Your task to perform on an android device: View the shopping cart on ebay.com. Add "razer deathadder" to the cart on ebay.com, then select checkout. Image 0: 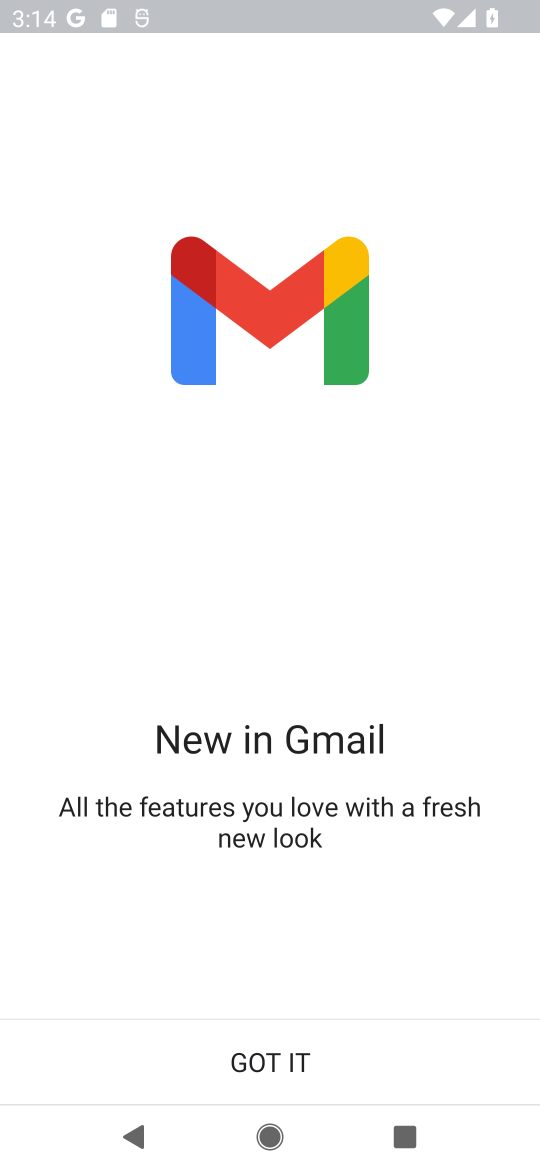
Step 0: click (405, 1042)
Your task to perform on an android device: View the shopping cart on ebay.com. Add "razer deathadder" to the cart on ebay.com, then select checkout. Image 1: 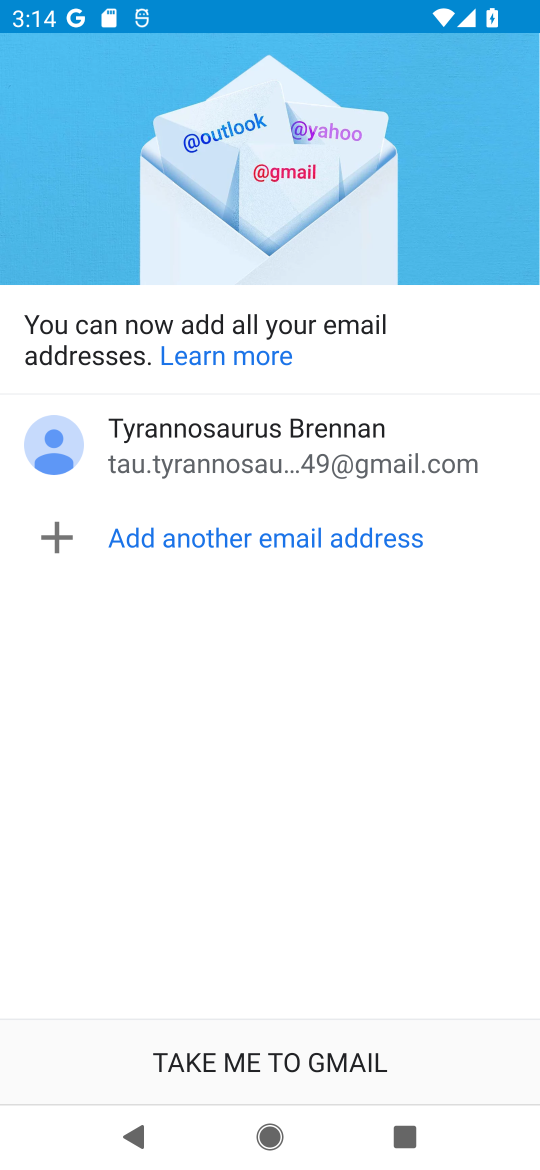
Step 1: press home button
Your task to perform on an android device: View the shopping cart on ebay.com. Add "razer deathadder" to the cart on ebay.com, then select checkout. Image 2: 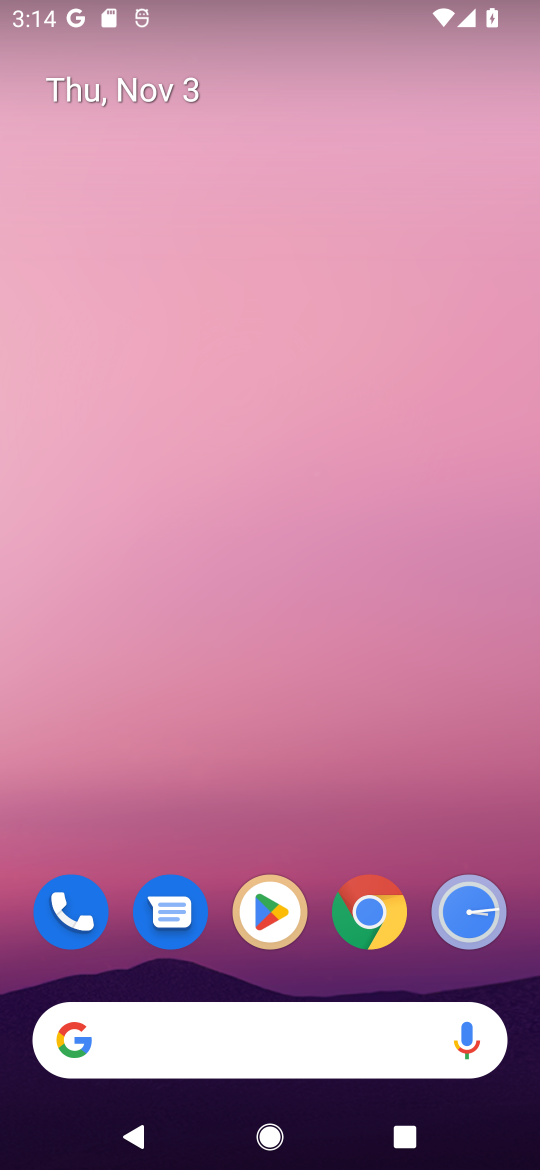
Step 2: click (369, 910)
Your task to perform on an android device: View the shopping cart on ebay.com. Add "razer deathadder" to the cart on ebay.com, then select checkout. Image 3: 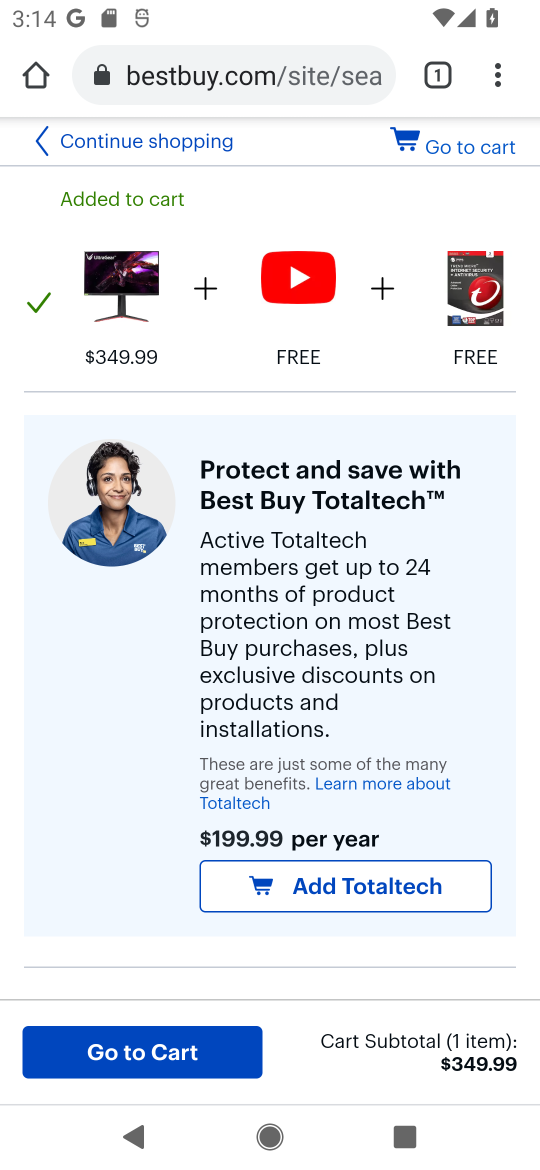
Step 3: click (307, 72)
Your task to perform on an android device: View the shopping cart on ebay.com. Add "razer deathadder" to the cart on ebay.com, then select checkout. Image 4: 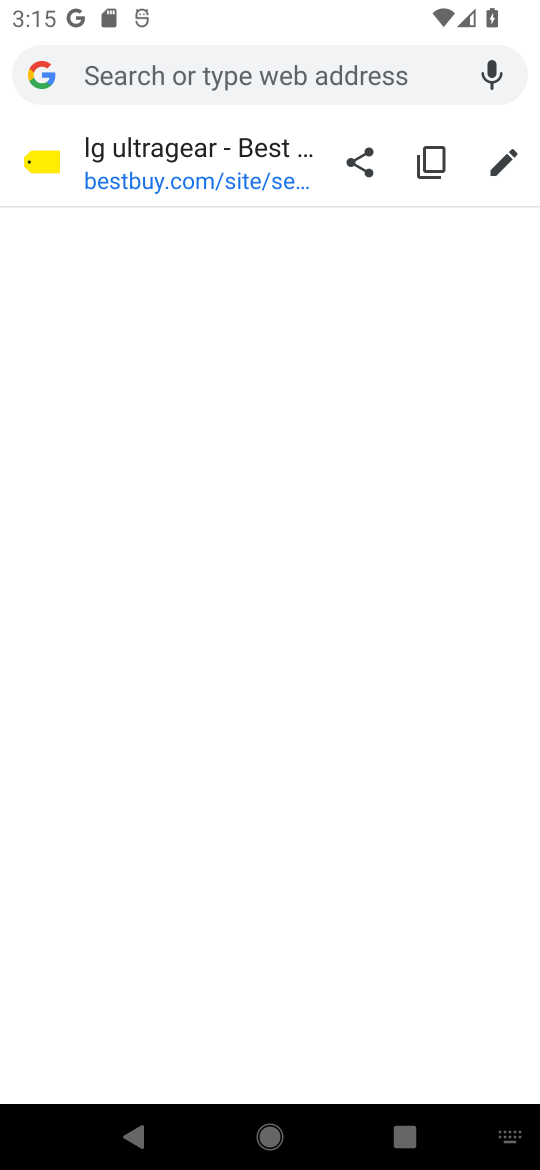
Step 4: click (273, 77)
Your task to perform on an android device: View the shopping cart on ebay.com. Add "razer deathadder" to the cart on ebay.com, then select checkout. Image 5: 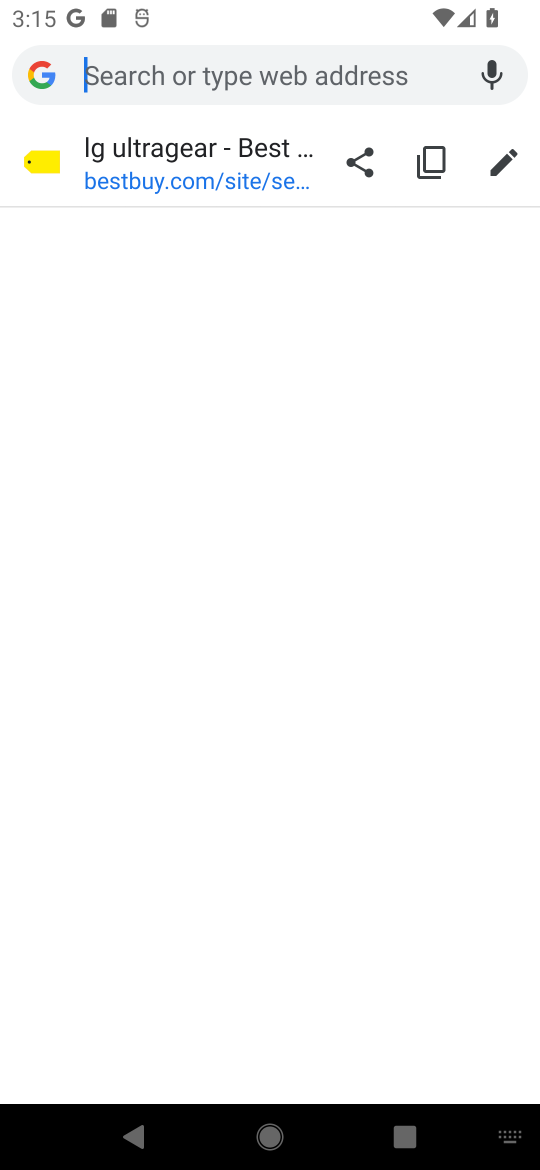
Step 5: type "ebay.com"
Your task to perform on an android device: View the shopping cart on ebay.com. Add "razer deathadder" to the cart on ebay.com, then select checkout. Image 6: 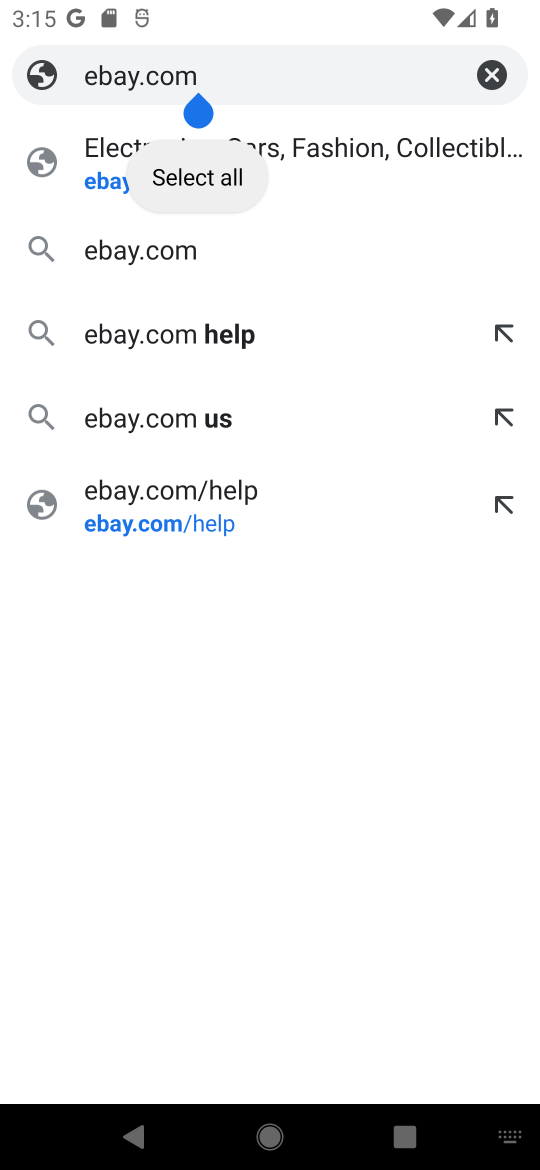
Step 6: click (185, 254)
Your task to perform on an android device: View the shopping cart on ebay.com. Add "razer deathadder" to the cart on ebay.com, then select checkout. Image 7: 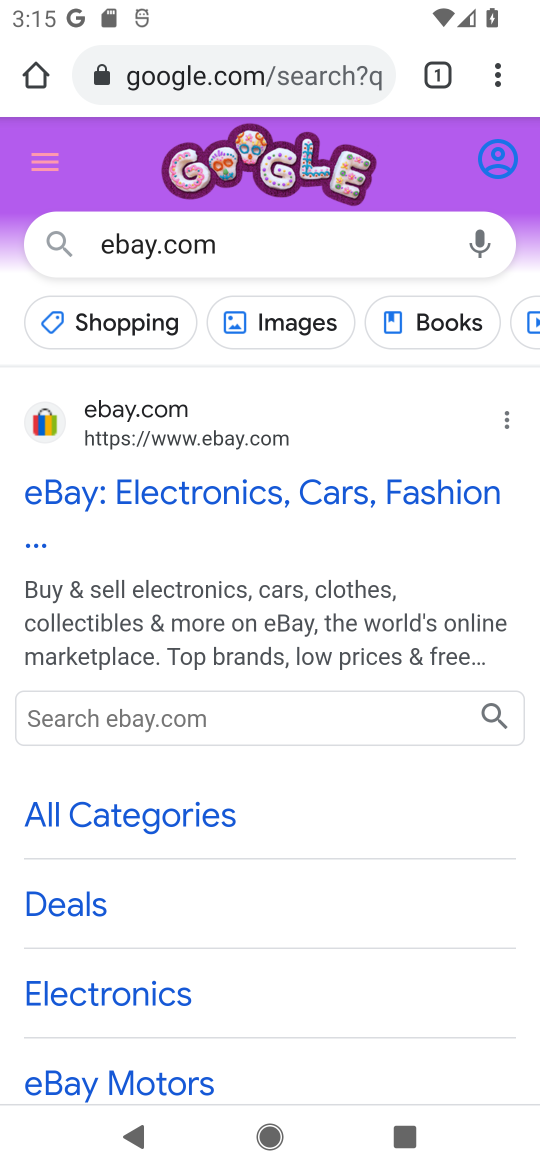
Step 7: click (171, 500)
Your task to perform on an android device: View the shopping cart on ebay.com. Add "razer deathadder" to the cart on ebay.com, then select checkout. Image 8: 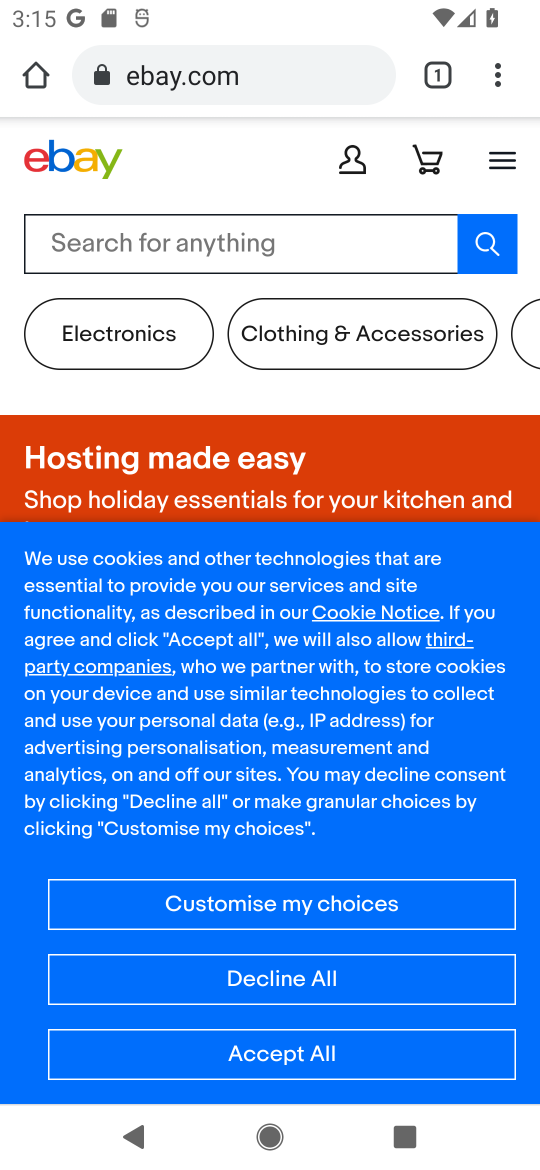
Step 8: click (417, 1062)
Your task to perform on an android device: View the shopping cart on ebay.com. Add "razer deathadder" to the cart on ebay.com, then select checkout. Image 9: 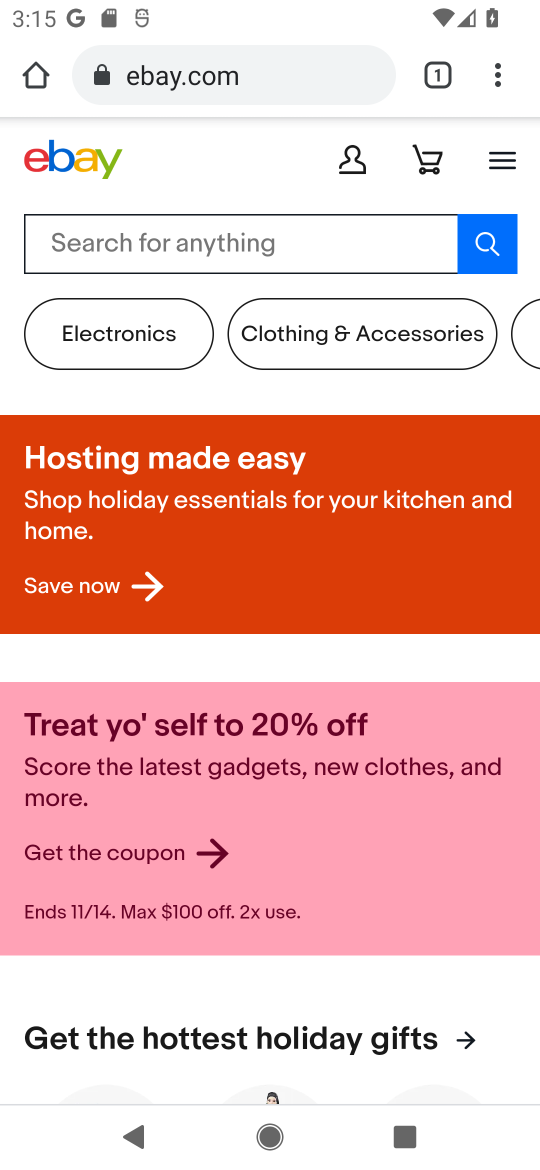
Step 9: click (198, 241)
Your task to perform on an android device: View the shopping cart on ebay.com. Add "razer deathadder" to the cart on ebay.com, then select checkout. Image 10: 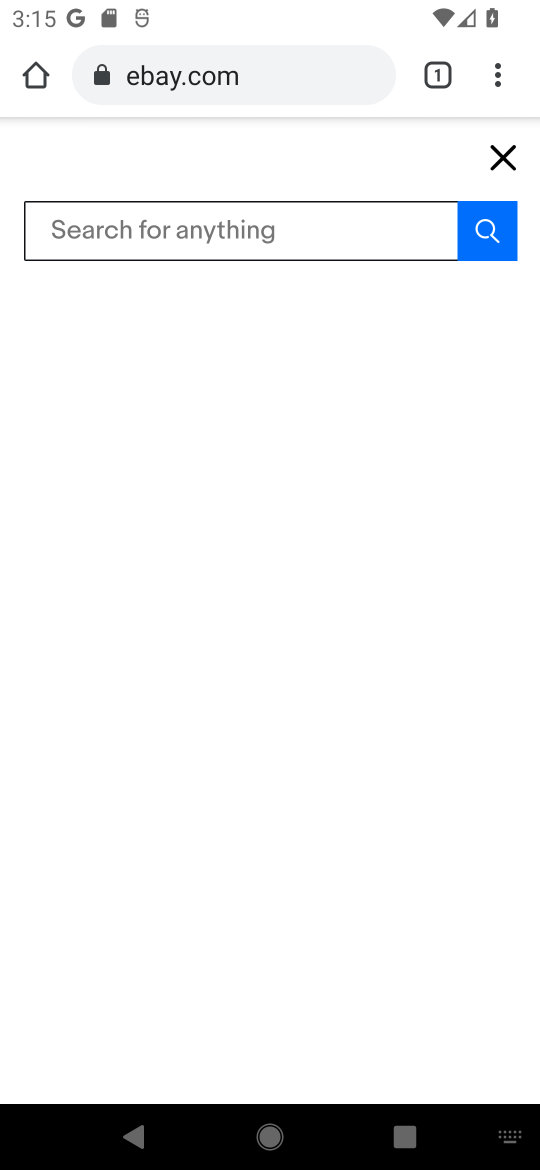
Step 10: type "razer deathadder"
Your task to perform on an android device: View the shopping cart on ebay.com. Add "razer deathadder" to the cart on ebay.com, then select checkout. Image 11: 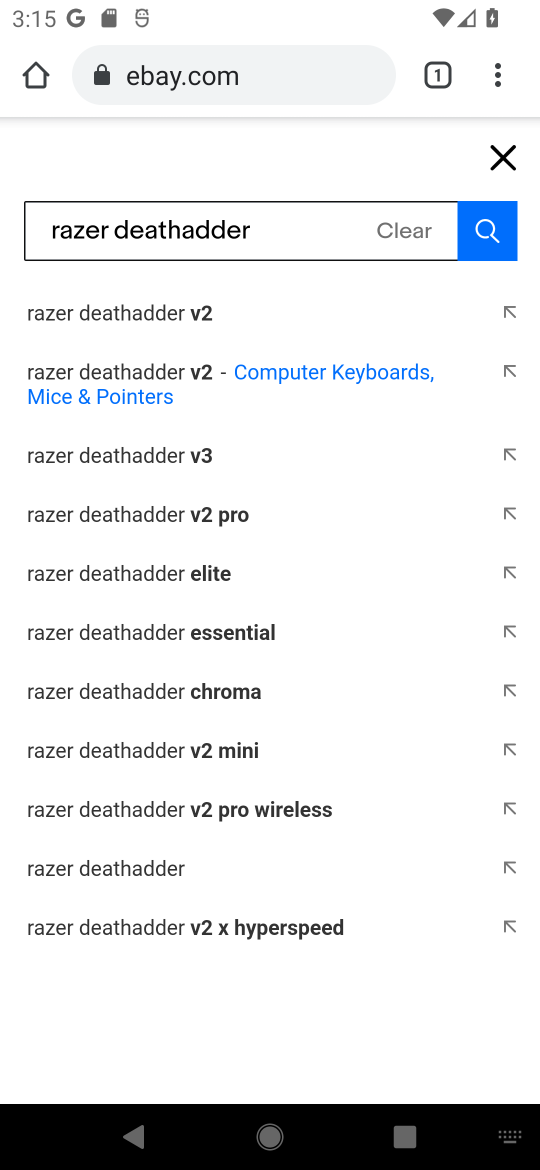
Step 11: click (138, 871)
Your task to perform on an android device: View the shopping cart on ebay.com. Add "razer deathadder" to the cart on ebay.com, then select checkout. Image 12: 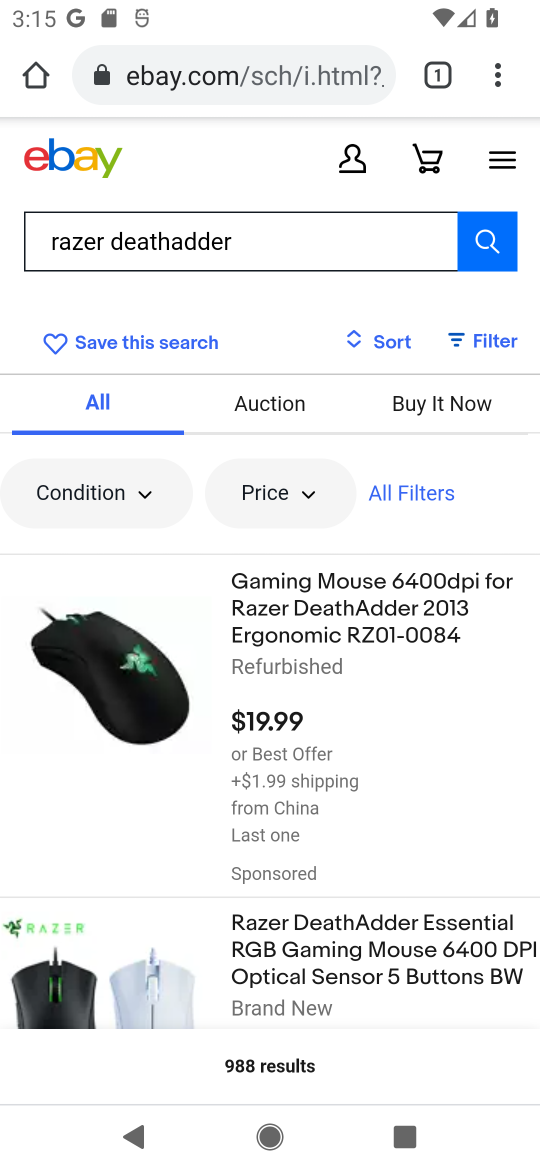
Step 12: click (377, 954)
Your task to perform on an android device: View the shopping cart on ebay.com. Add "razer deathadder" to the cart on ebay.com, then select checkout. Image 13: 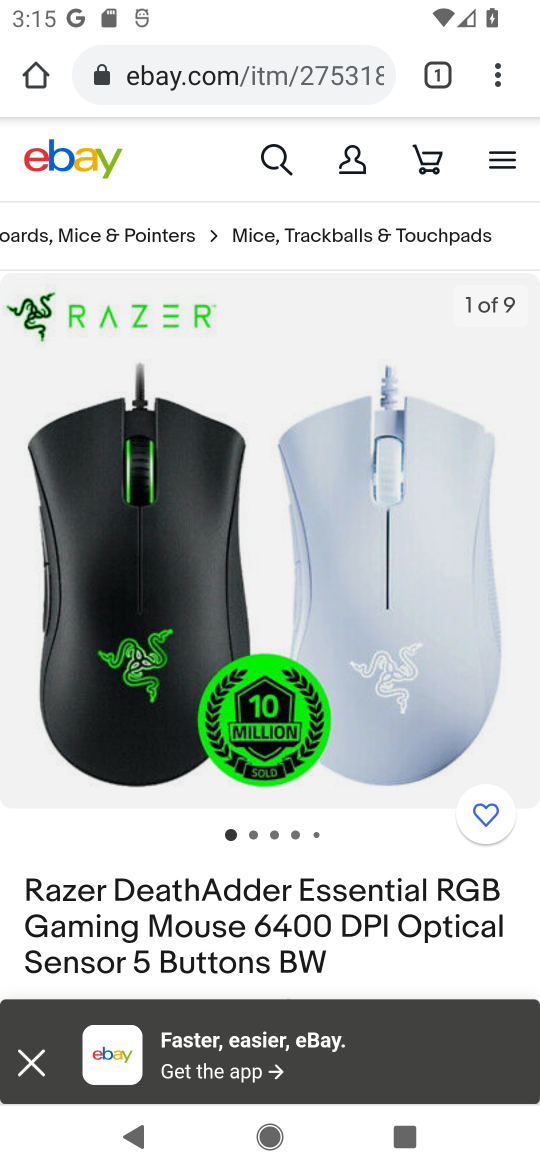
Step 13: drag from (267, 949) to (293, 304)
Your task to perform on an android device: View the shopping cart on ebay.com. Add "razer deathadder" to the cart on ebay.com, then select checkout. Image 14: 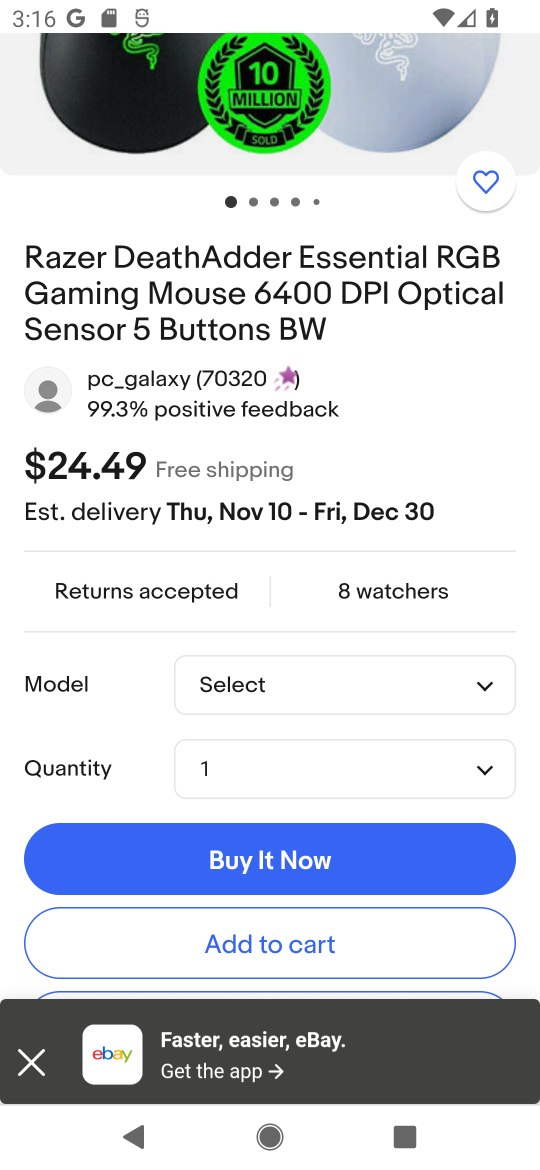
Step 14: click (311, 941)
Your task to perform on an android device: View the shopping cart on ebay.com. Add "razer deathadder" to the cart on ebay.com, then select checkout. Image 15: 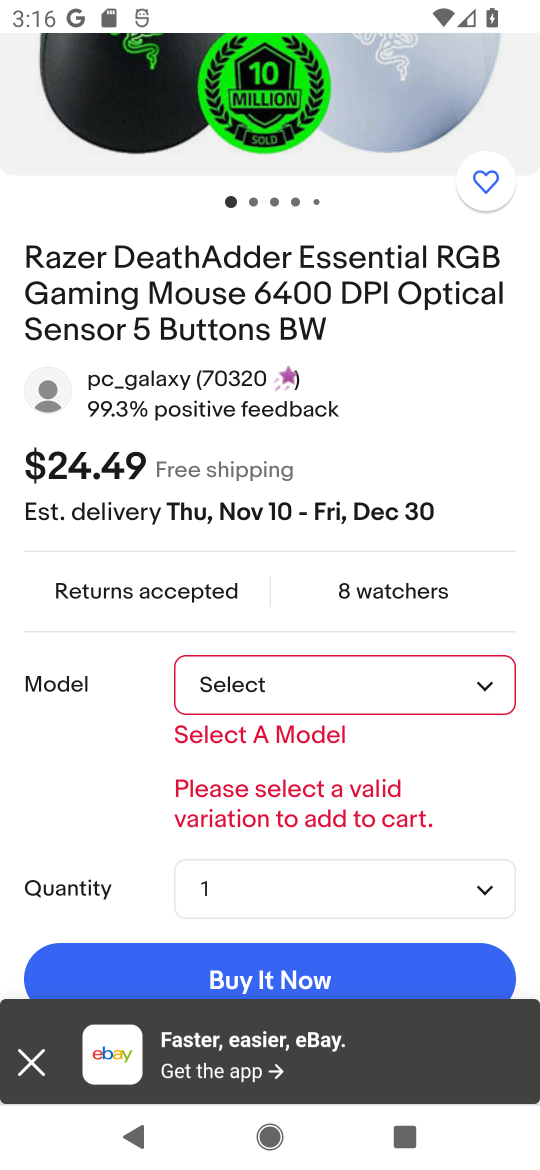
Step 15: click (487, 686)
Your task to perform on an android device: View the shopping cart on ebay.com. Add "razer deathadder" to the cart on ebay.com, then select checkout. Image 16: 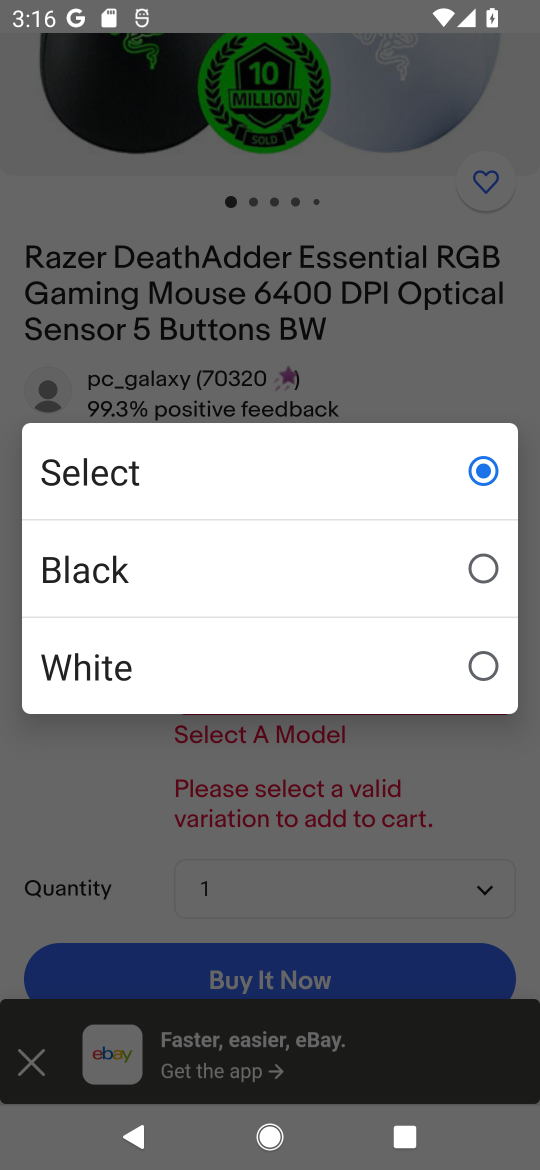
Step 16: click (209, 576)
Your task to perform on an android device: View the shopping cart on ebay.com. Add "razer deathadder" to the cart on ebay.com, then select checkout. Image 17: 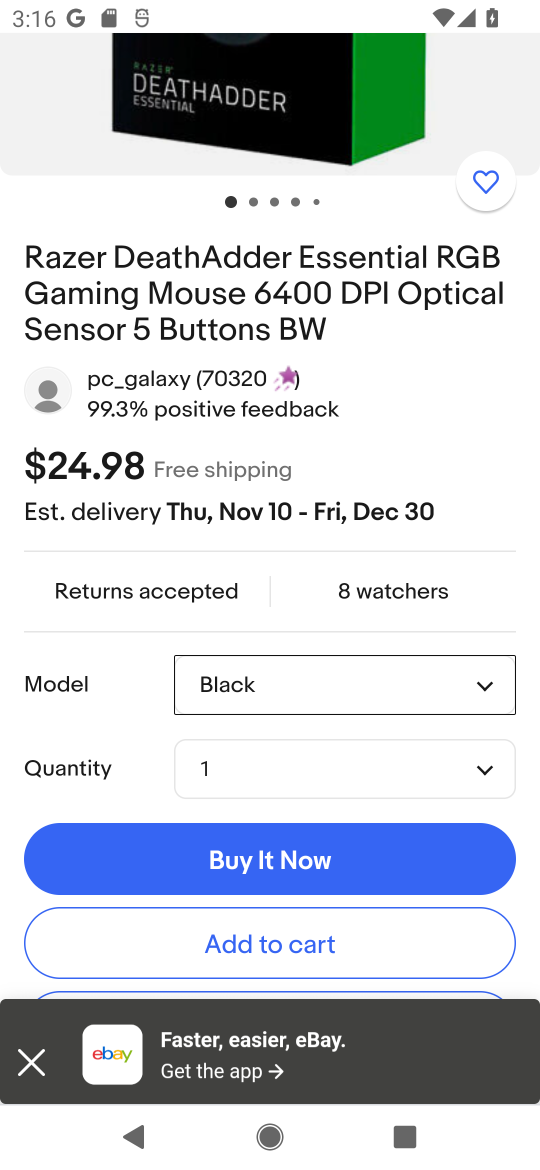
Step 17: click (296, 961)
Your task to perform on an android device: View the shopping cart on ebay.com. Add "razer deathadder" to the cart on ebay.com, then select checkout. Image 18: 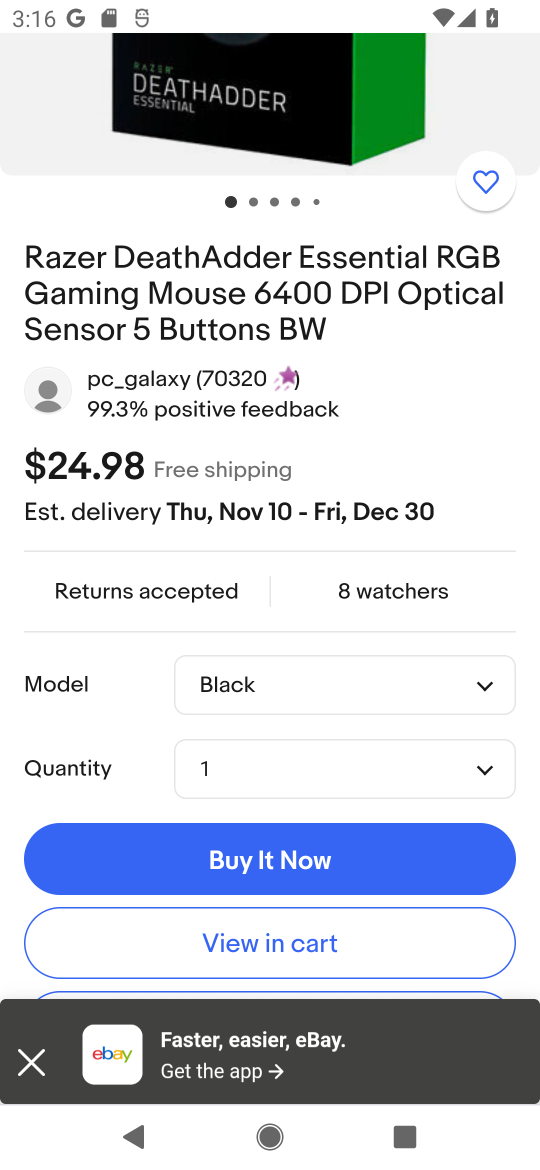
Step 18: click (326, 945)
Your task to perform on an android device: View the shopping cart on ebay.com. Add "razer deathadder" to the cart on ebay.com, then select checkout. Image 19: 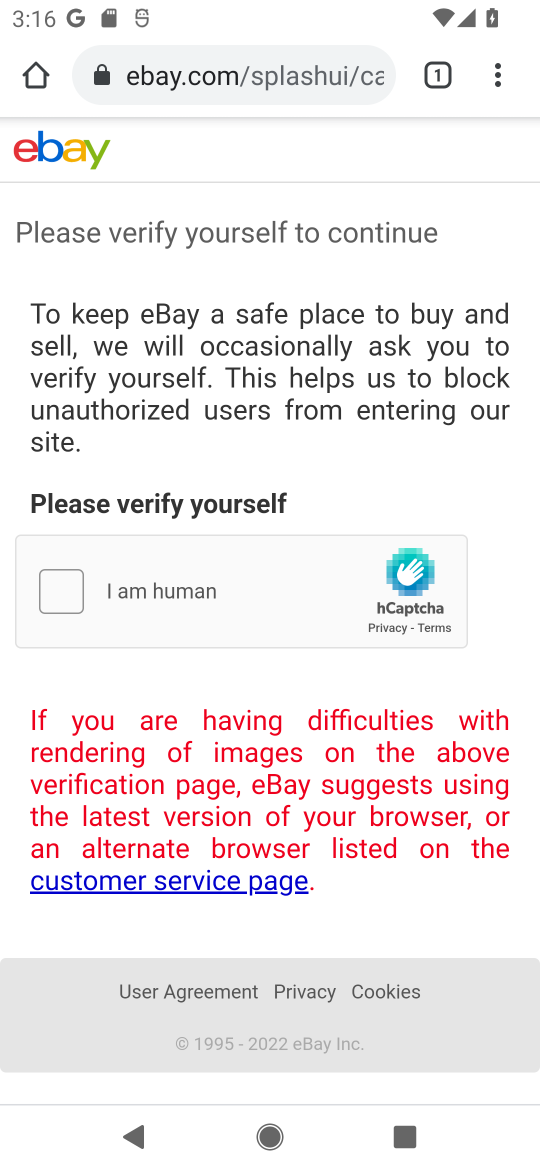
Step 19: click (58, 587)
Your task to perform on an android device: View the shopping cart on ebay.com. Add "razer deathadder" to the cart on ebay.com, then select checkout. Image 20: 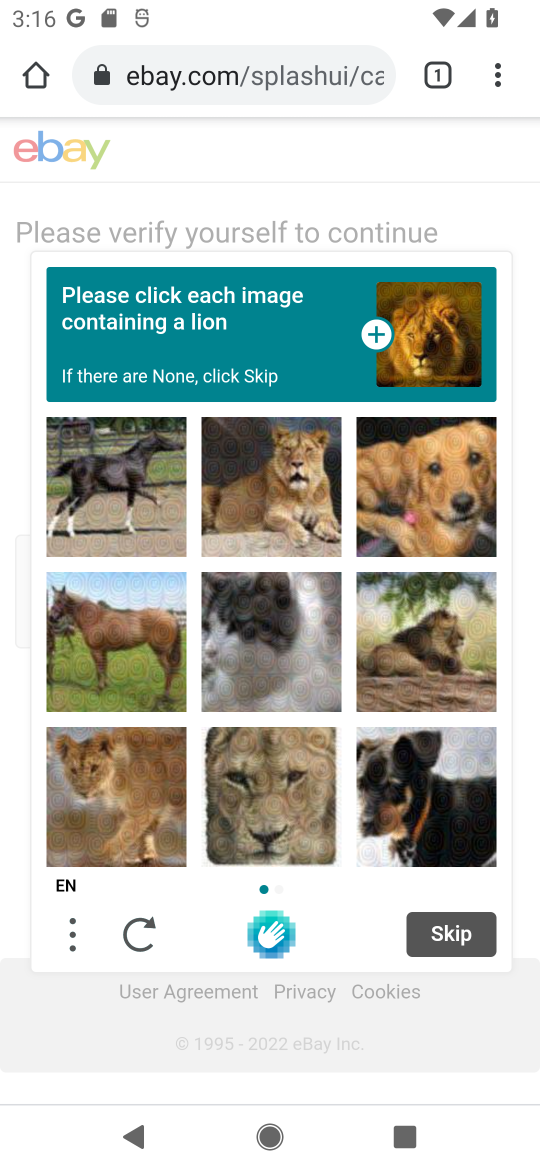
Step 20: click (277, 480)
Your task to perform on an android device: View the shopping cart on ebay.com. Add "razer deathadder" to the cart on ebay.com, then select checkout. Image 21: 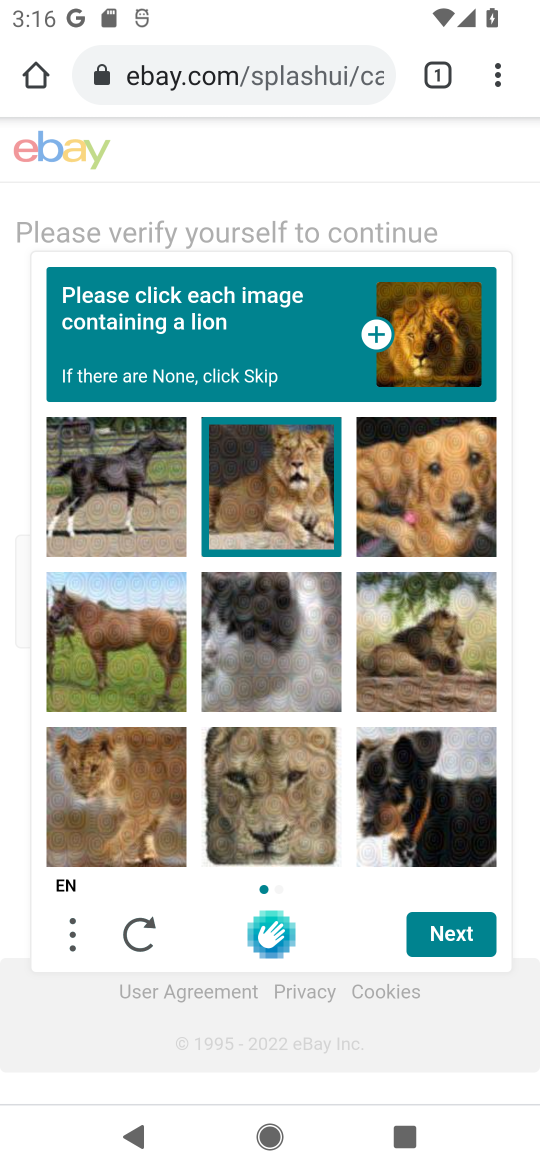
Step 21: click (266, 783)
Your task to perform on an android device: View the shopping cart on ebay.com. Add "razer deathadder" to the cart on ebay.com, then select checkout. Image 22: 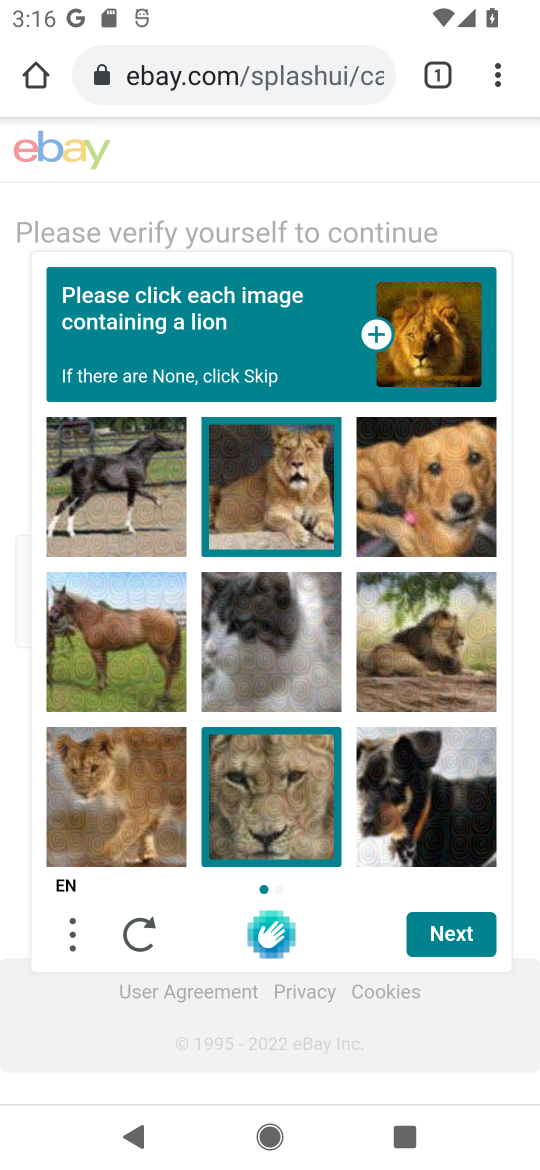
Step 22: click (104, 794)
Your task to perform on an android device: View the shopping cart on ebay.com. Add "razer deathadder" to the cart on ebay.com, then select checkout. Image 23: 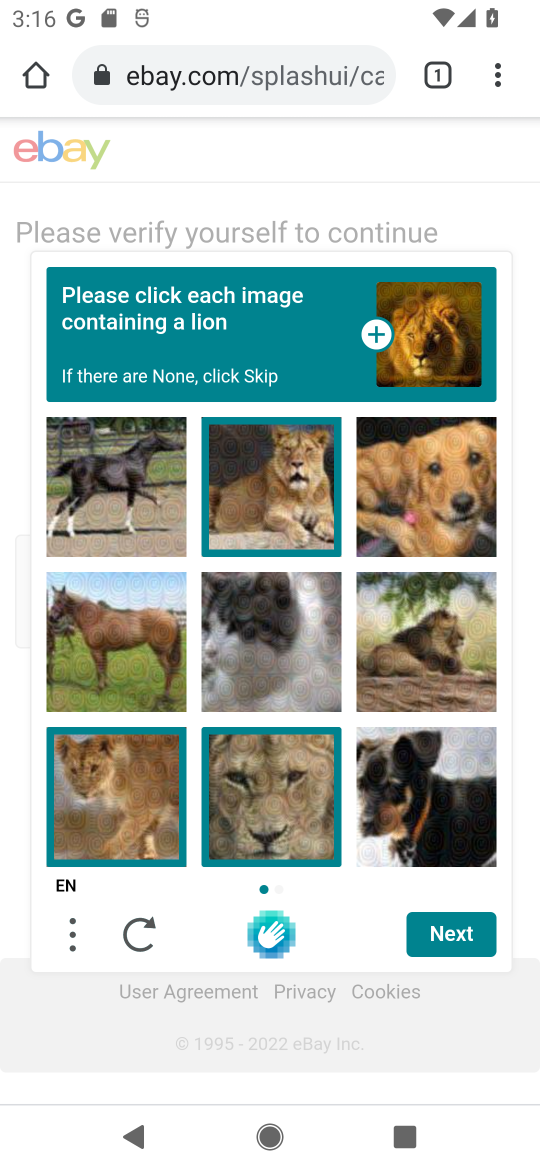
Step 23: click (442, 635)
Your task to perform on an android device: View the shopping cart on ebay.com. Add "razer deathadder" to the cart on ebay.com, then select checkout. Image 24: 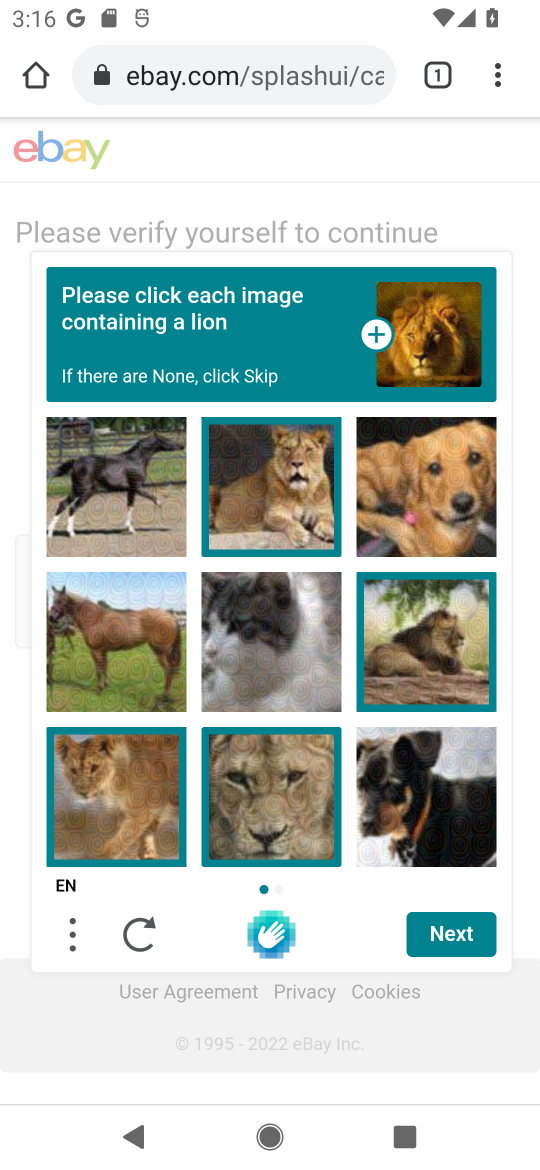
Step 24: click (472, 929)
Your task to perform on an android device: View the shopping cart on ebay.com. Add "razer deathadder" to the cart on ebay.com, then select checkout. Image 25: 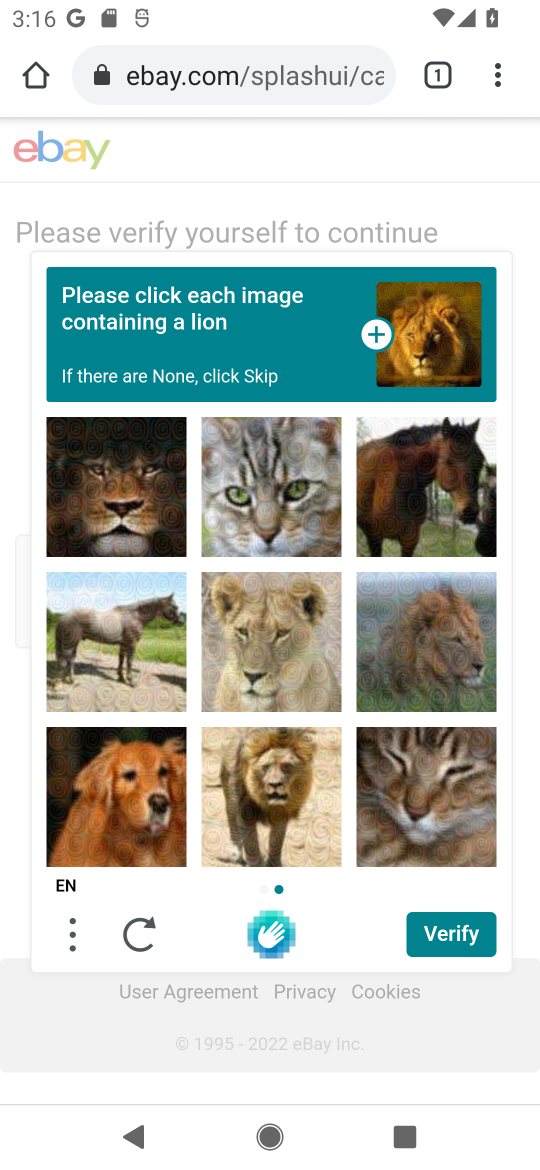
Step 25: click (472, 929)
Your task to perform on an android device: View the shopping cart on ebay.com. Add "razer deathadder" to the cart on ebay.com, then select checkout. Image 26: 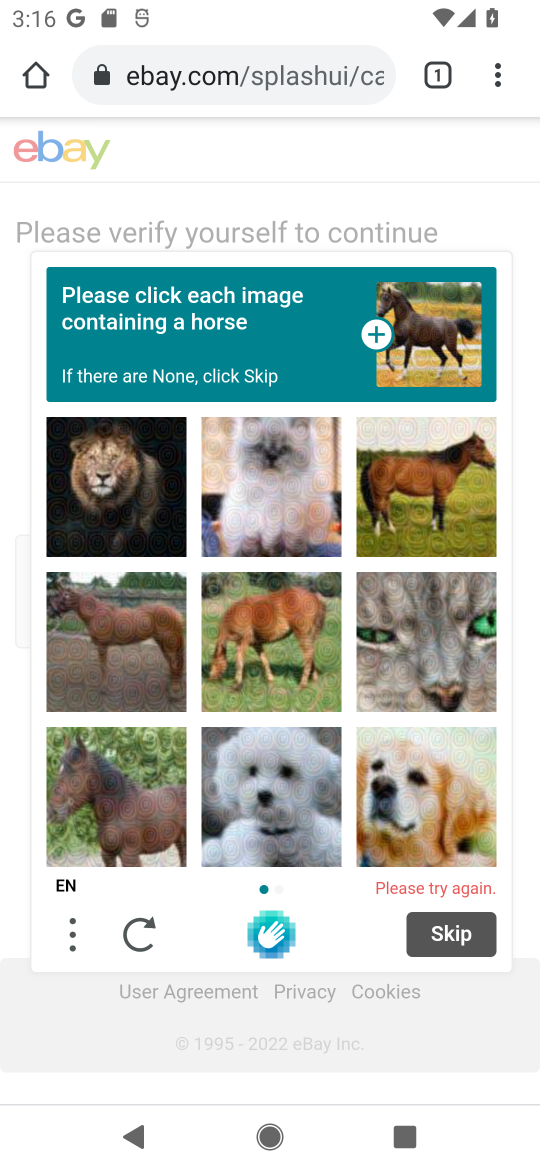
Step 26: press back button
Your task to perform on an android device: View the shopping cart on ebay.com. Add "razer deathadder" to the cart on ebay.com, then select checkout. Image 27: 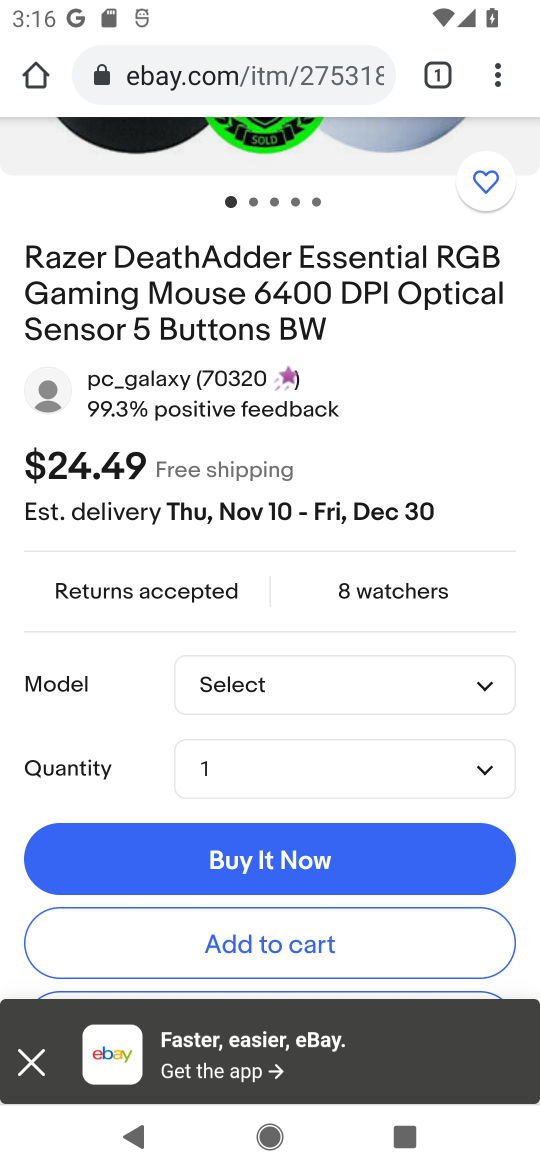
Step 27: drag from (330, 357) to (322, 876)
Your task to perform on an android device: View the shopping cart on ebay.com. Add "razer deathadder" to the cart on ebay.com, then select checkout. Image 28: 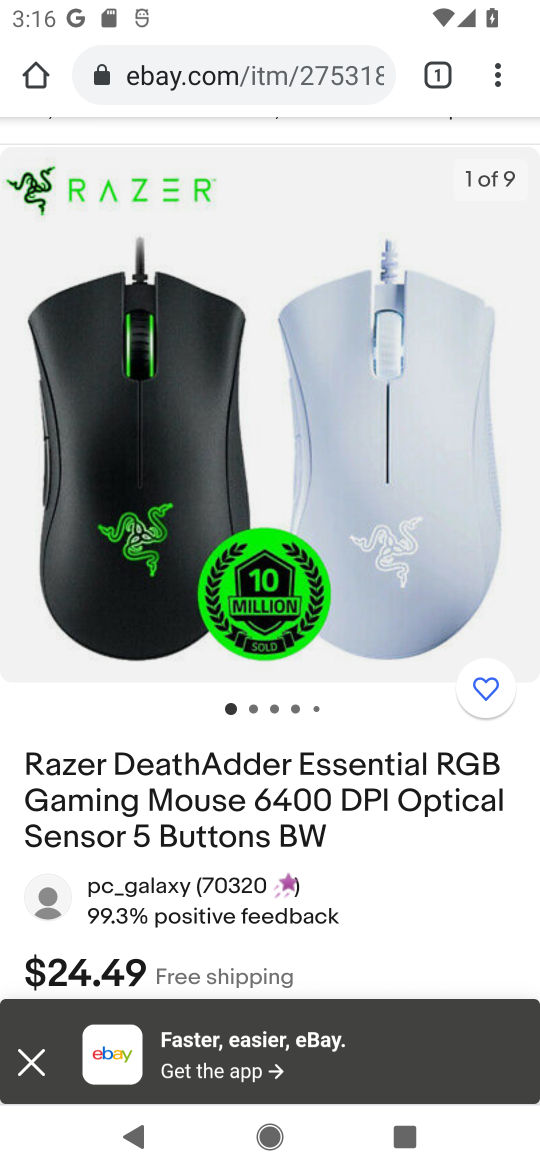
Step 28: drag from (254, 424) to (306, 841)
Your task to perform on an android device: View the shopping cart on ebay.com. Add "razer deathadder" to the cart on ebay.com, then select checkout. Image 29: 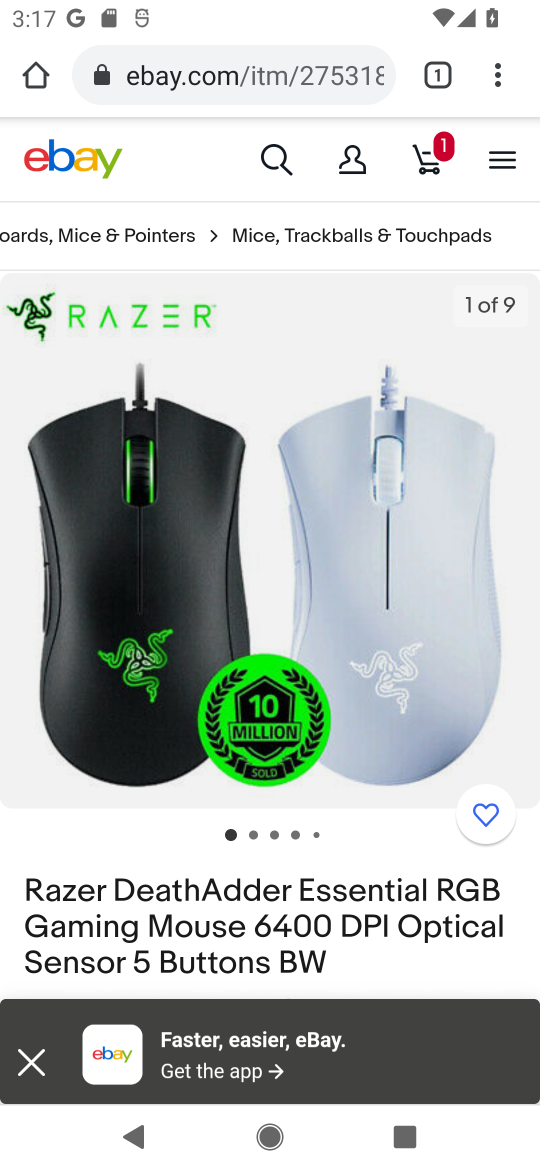
Step 29: click (434, 161)
Your task to perform on an android device: View the shopping cart on ebay.com. Add "razer deathadder" to the cart on ebay.com, then select checkout. Image 30: 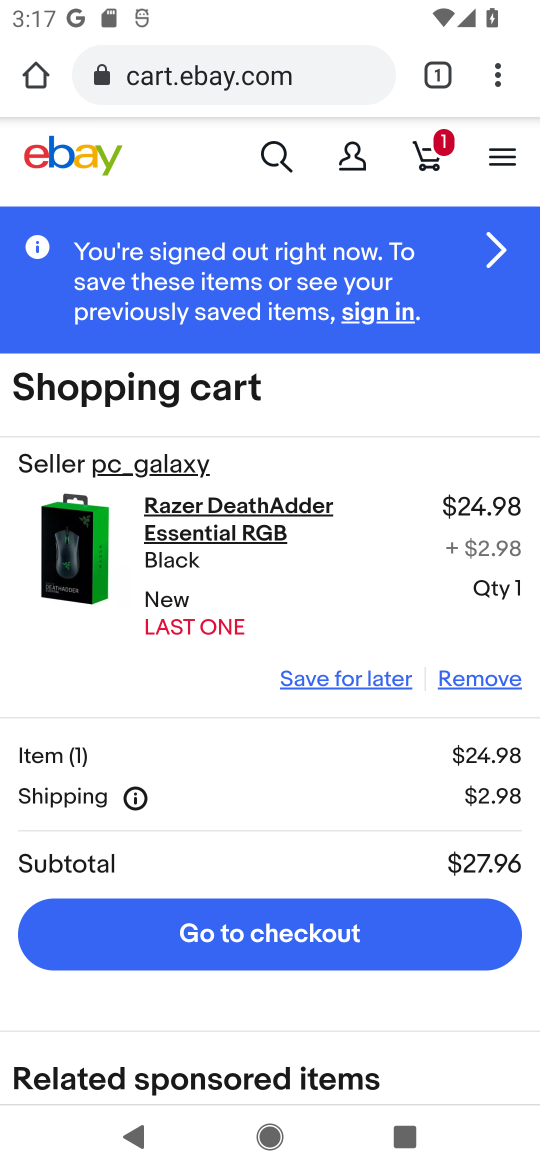
Step 30: click (314, 947)
Your task to perform on an android device: View the shopping cart on ebay.com. Add "razer deathadder" to the cart on ebay.com, then select checkout. Image 31: 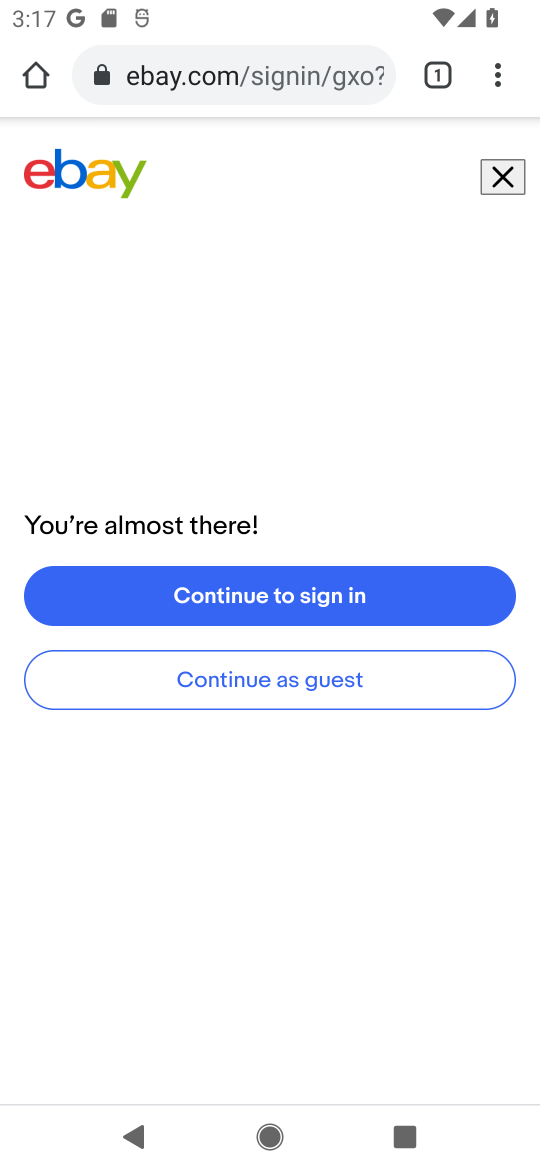
Step 31: task complete